Your task to perform on an android device: Go to Reddit.com Image 0: 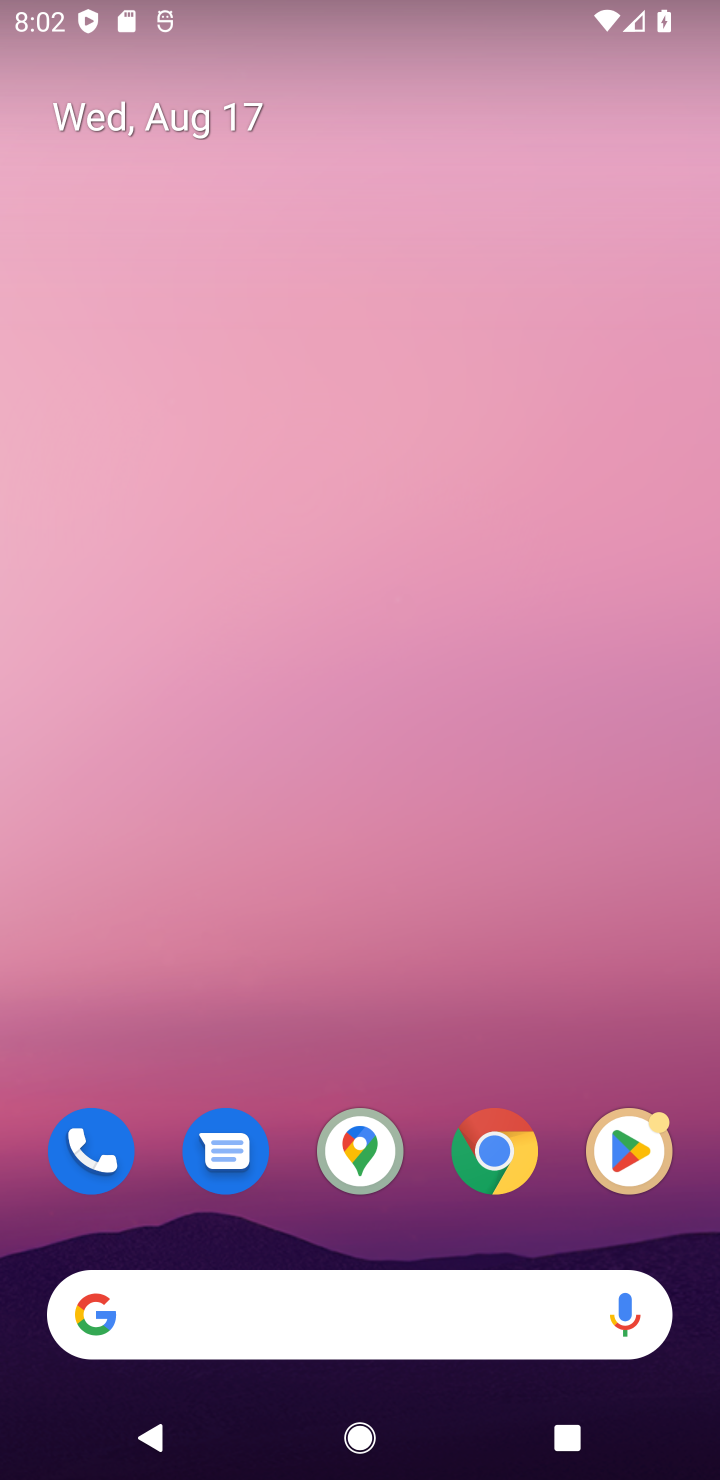
Step 0: drag from (407, 713) to (415, 10)
Your task to perform on an android device: Go to Reddit.com Image 1: 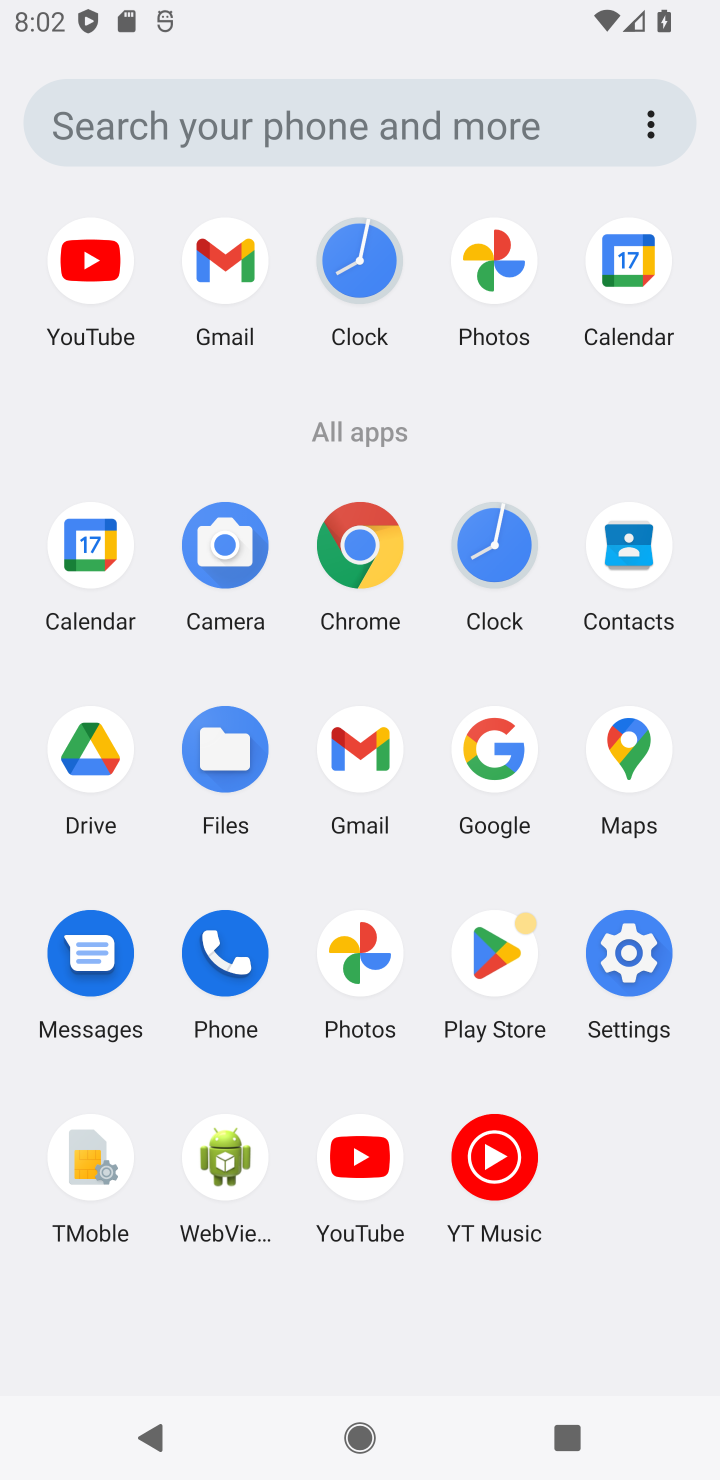
Step 1: click (362, 544)
Your task to perform on an android device: Go to Reddit.com Image 2: 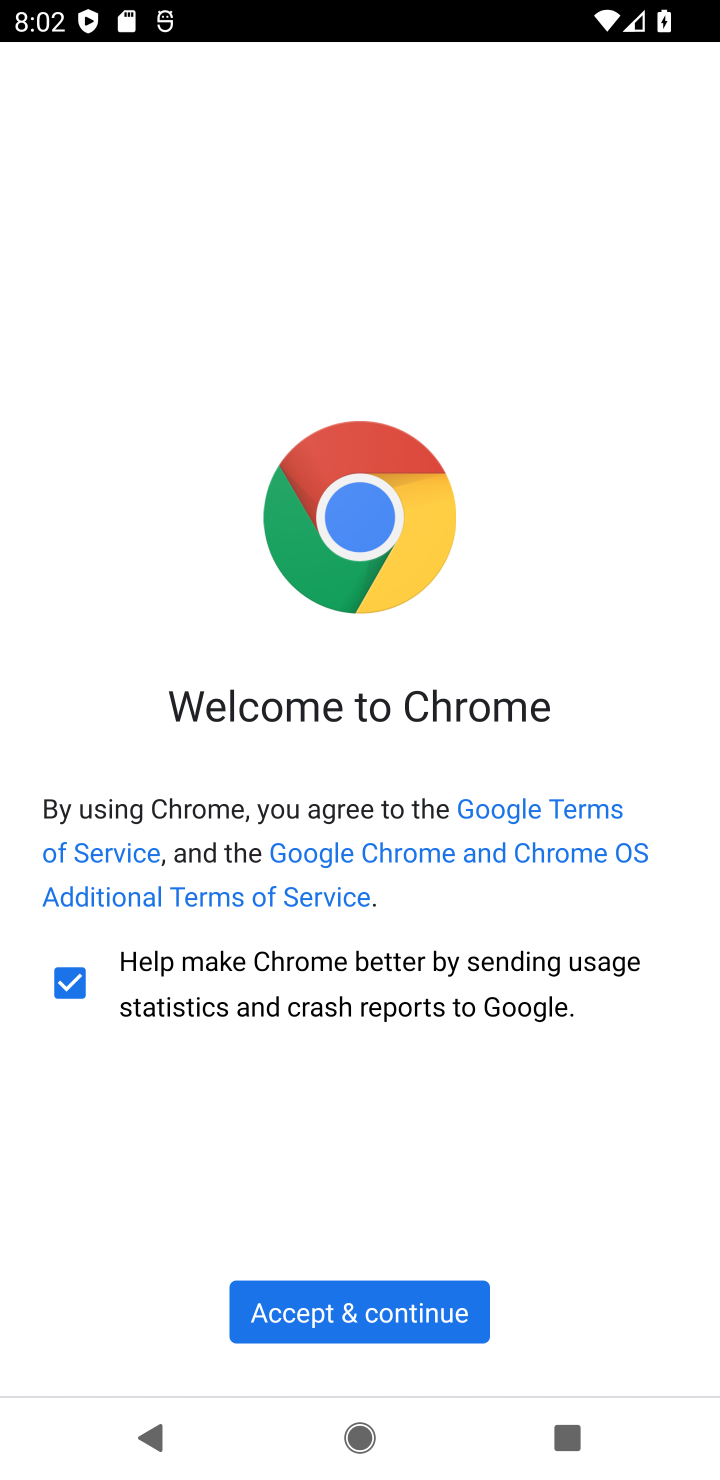
Step 2: click (321, 1297)
Your task to perform on an android device: Go to Reddit.com Image 3: 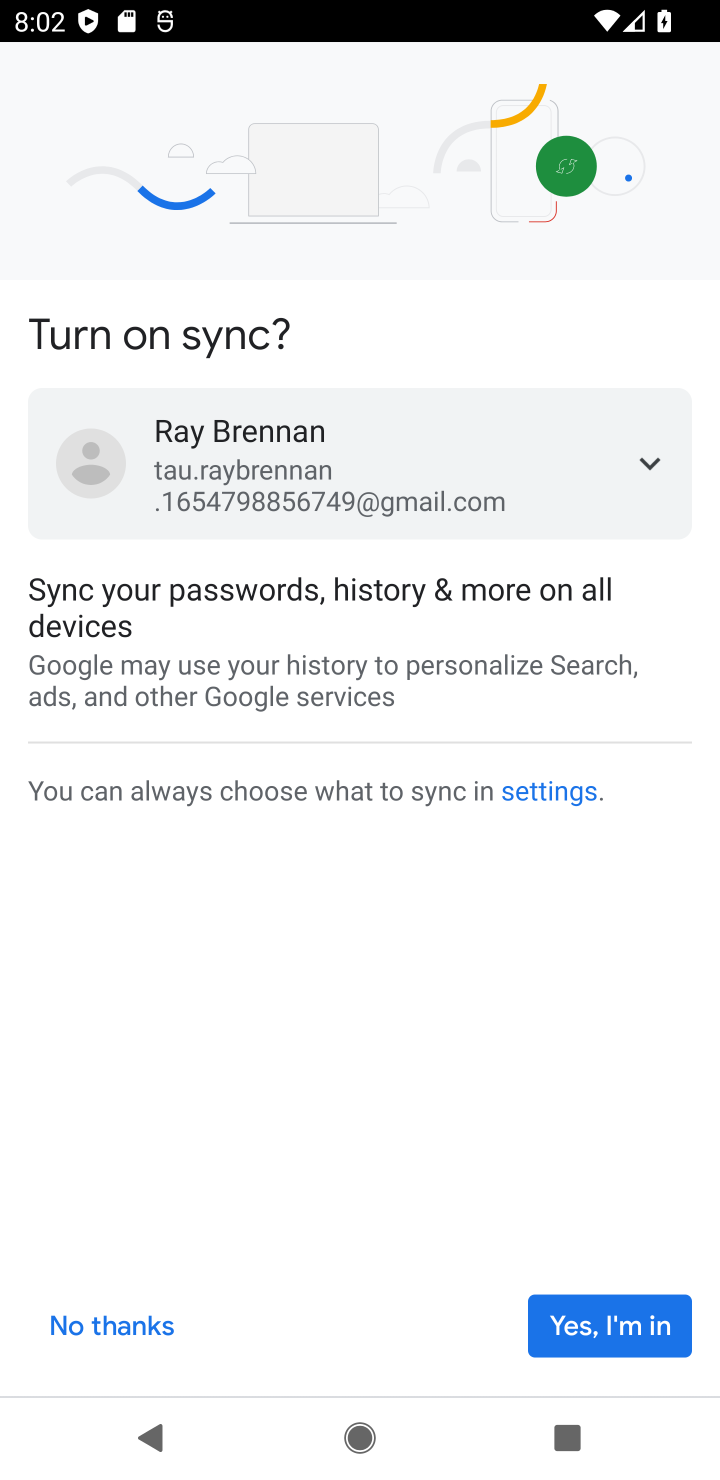
Step 3: click (613, 1311)
Your task to perform on an android device: Go to Reddit.com Image 4: 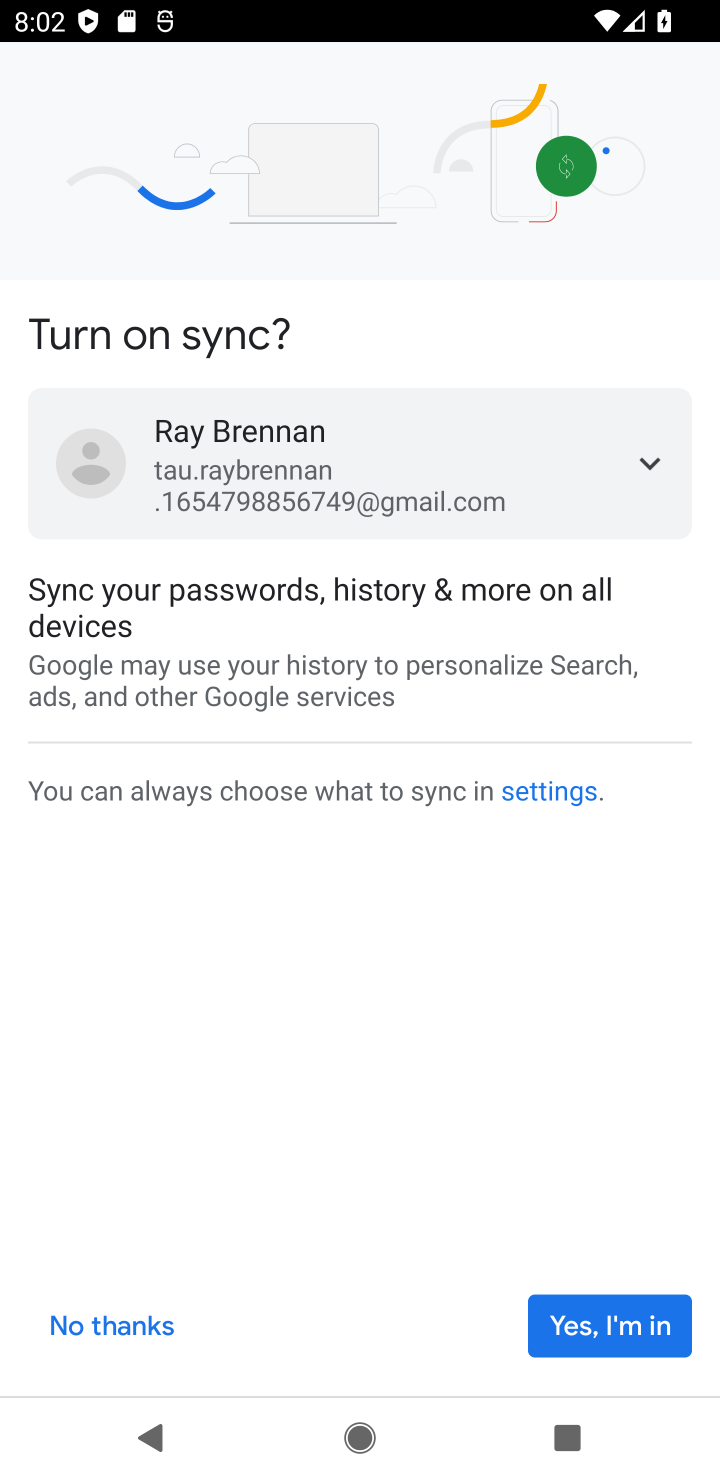
Step 4: click (653, 1311)
Your task to perform on an android device: Go to Reddit.com Image 5: 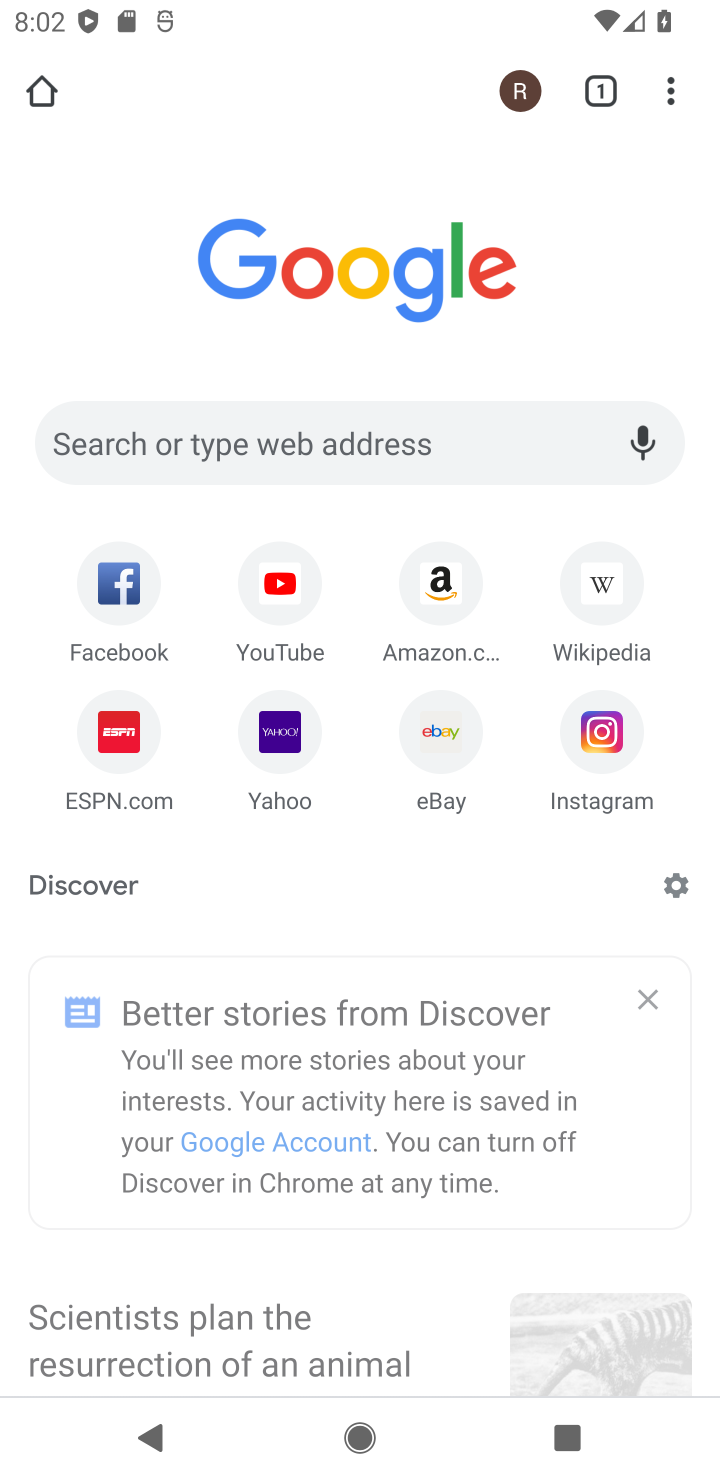
Step 5: click (281, 434)
Your task to perform on an android device: Go to Reddit.com Image 6: 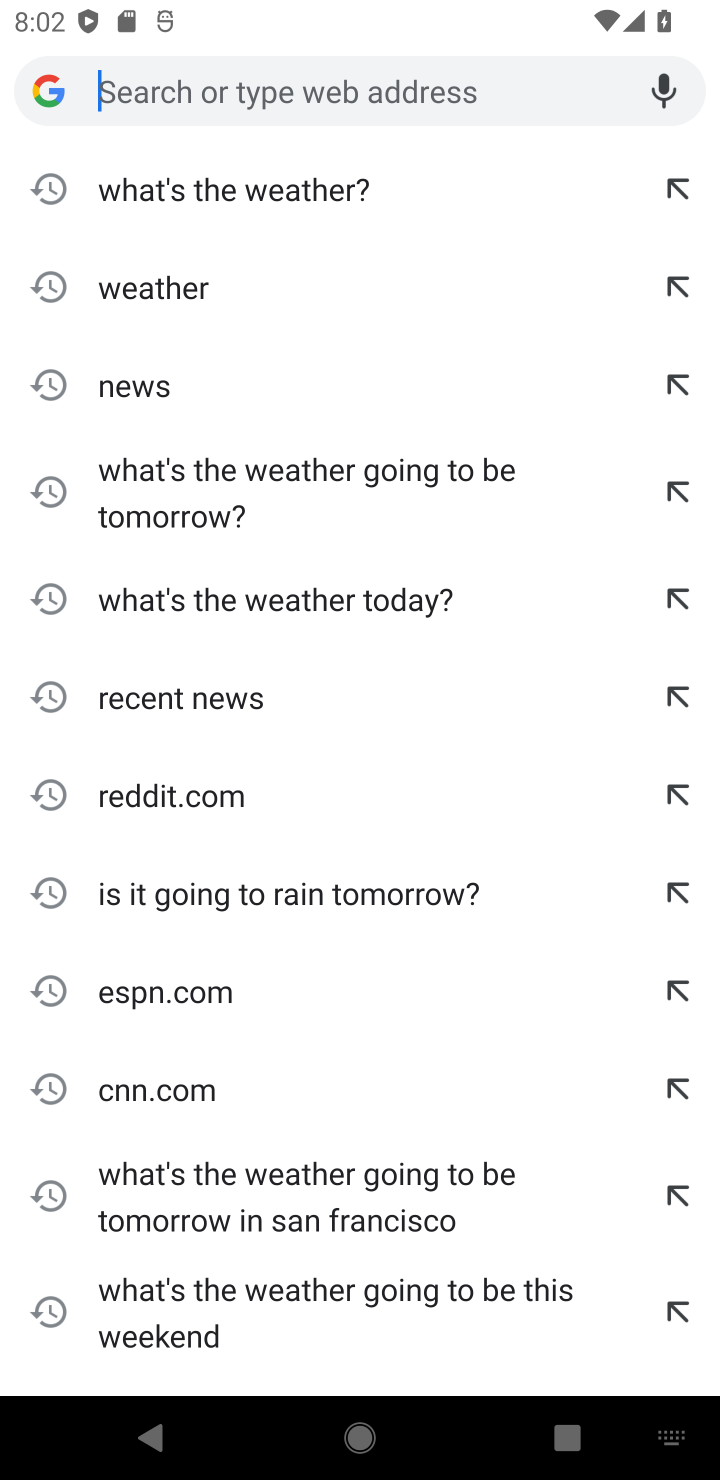
Step 6: type "Reddit.com"
Your task to perform on an android device: Go to Reddit.com Image 7: 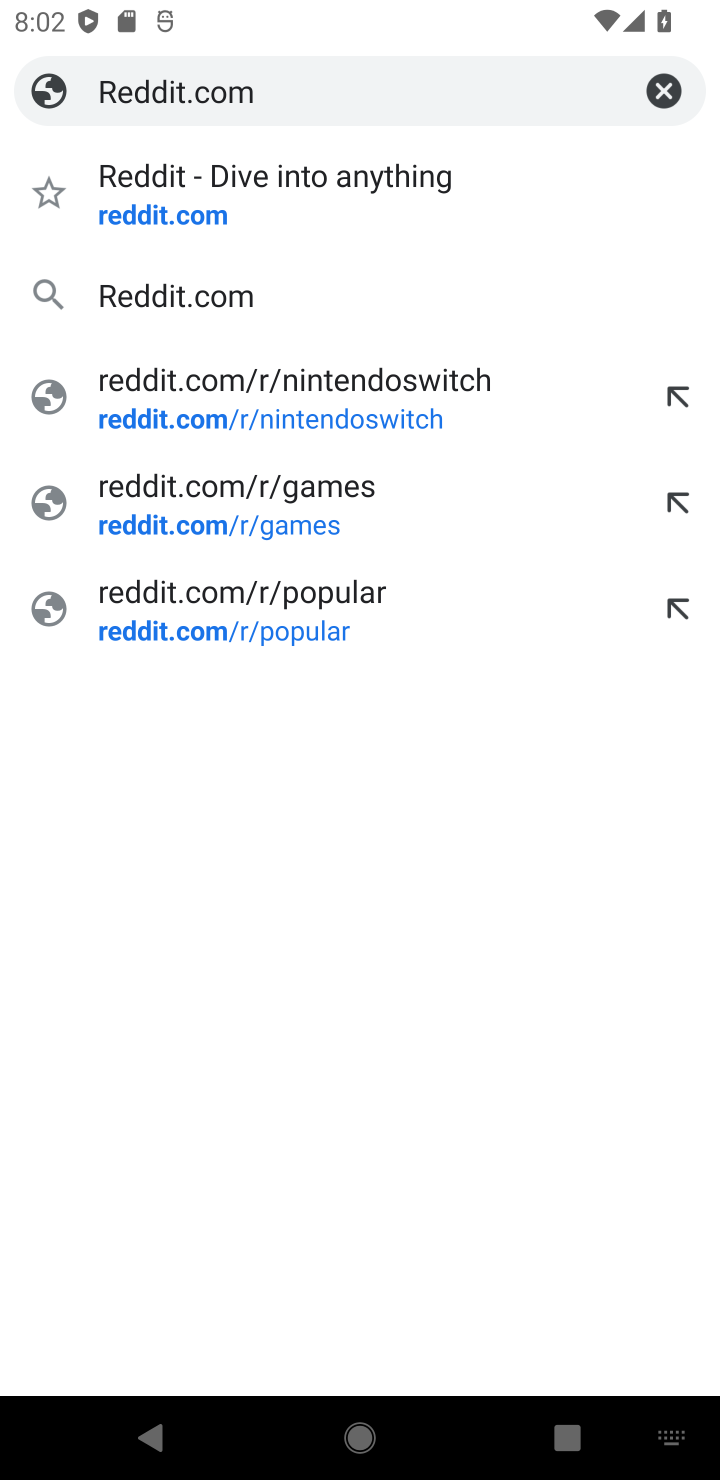
Step 7: click (141, 215)
Your task to perform on an android device: Go to Reddit.com Image 8: 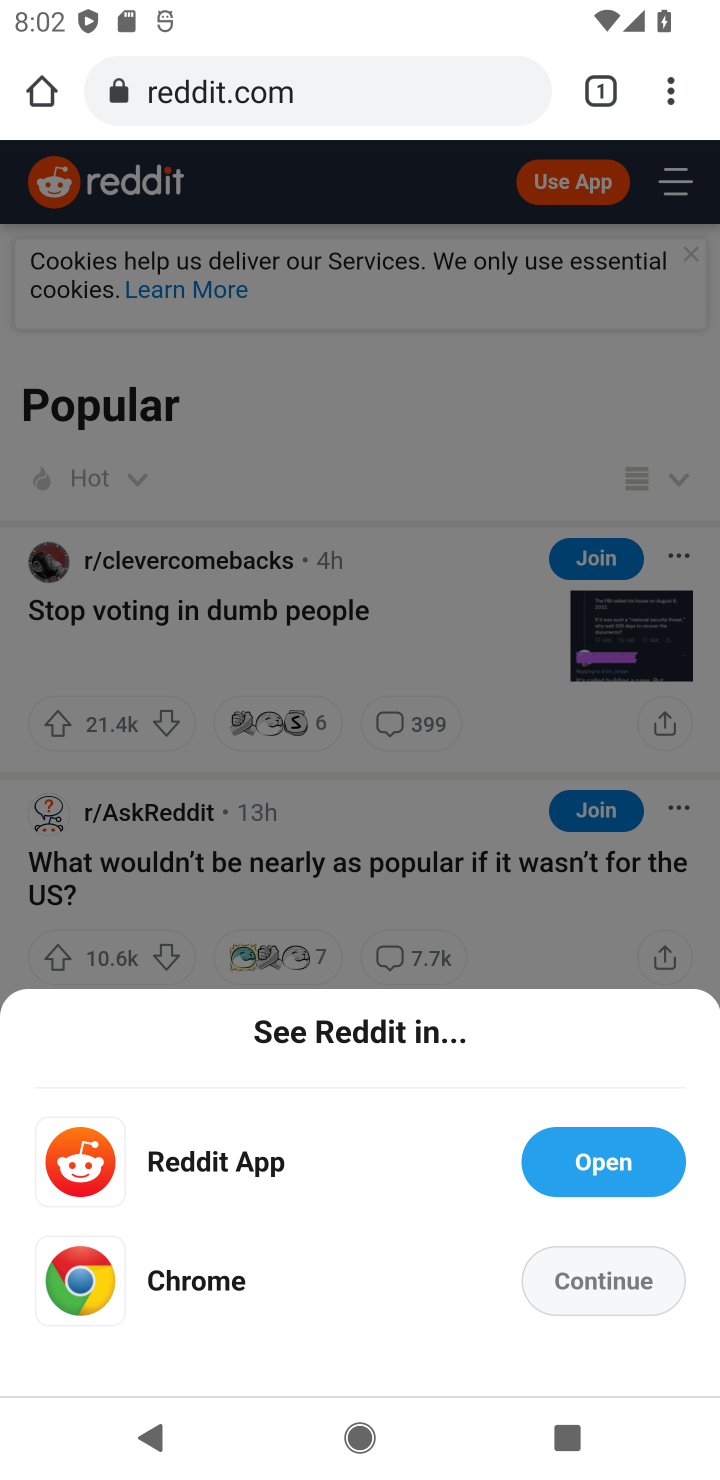
Step 8: task complete